Your task to perform on an android device: turn notification dots on Image 0: 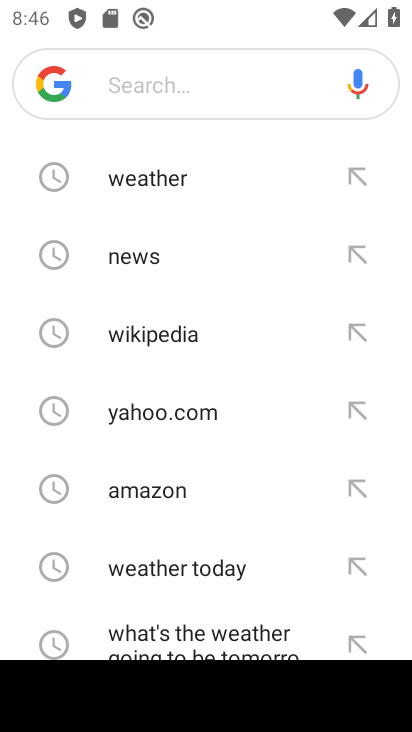
Step 0: press home button
Your task to perform on an android device: turn notification dots on Image 1: 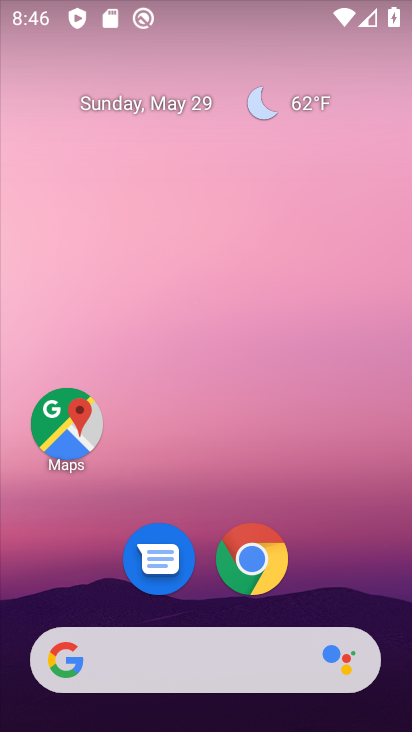
Step 1: drag from (342, 537) to (339, 248)
Your task to perform on an android device: turn notification dots on Image 2: 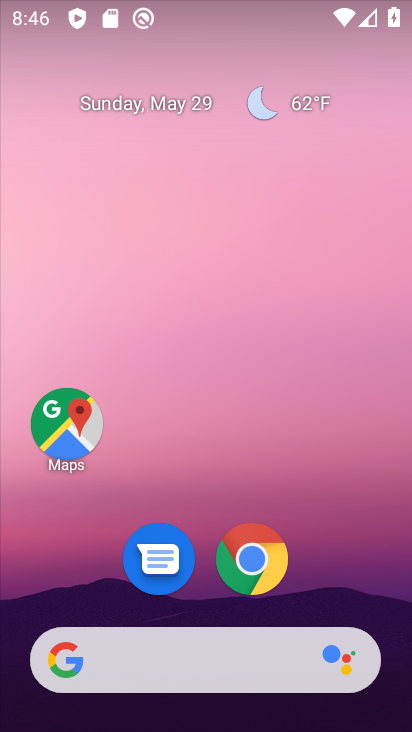
Step 2: drag from (326, 602) to (292, 167)
Your task to perform on an android device: turn notification dots on Image 3: 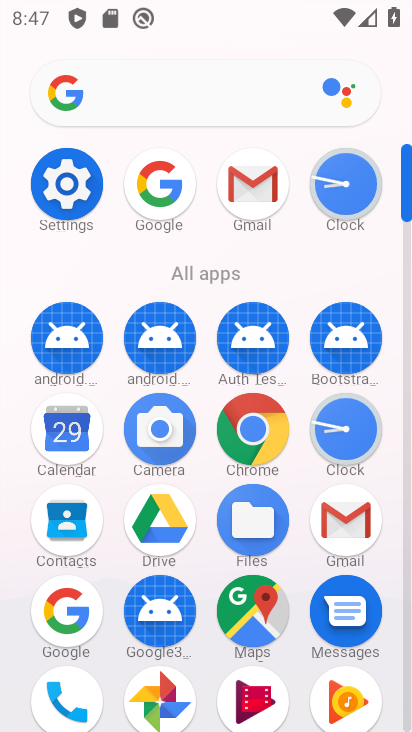
Step 3: click (64, 172)
Your task to perform on an android device: turn notification dots on Image 4: 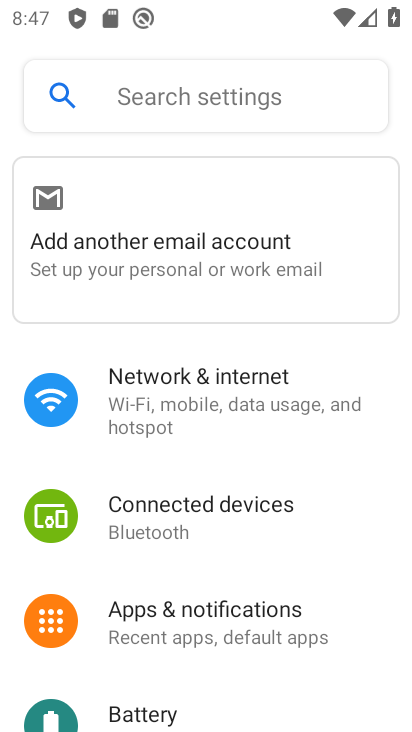
Step 4: click (248, 81)
Your task to perform on an android device: turn notification dots on Image 5: 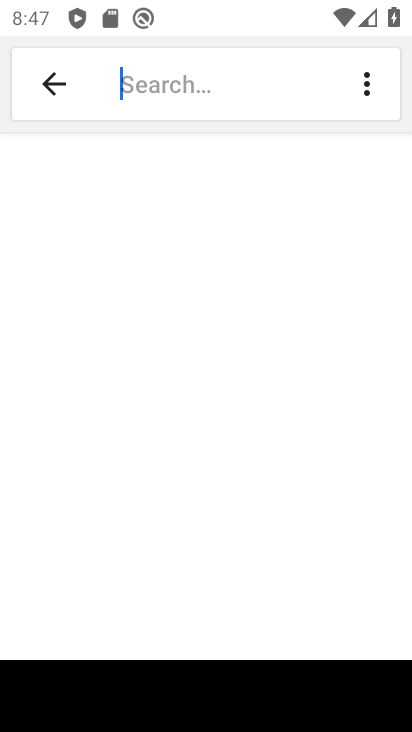
Step 5: type "notification dots"
Your task to perform on an android device: turn notification dots on Image 6: 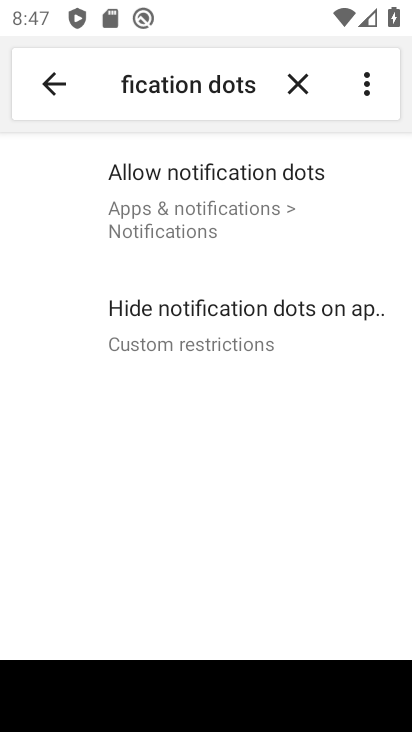
Step 6: click (147, 209)
Your task to perform on an android device: turn notification dots on Image 7: 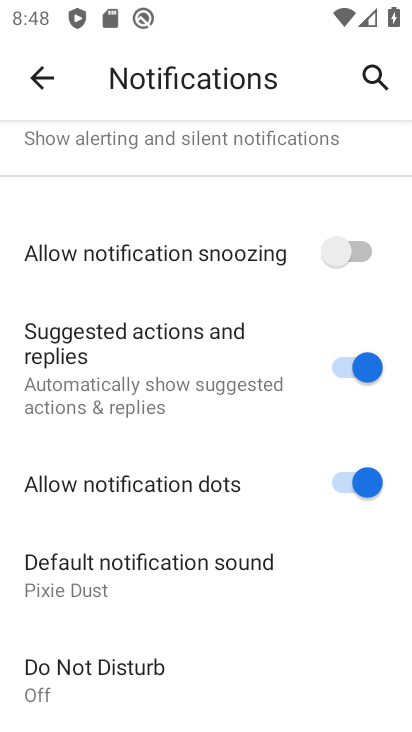
Step 7: task complete